Your task to perform on an android device: Is it going to rain today? Image 0: 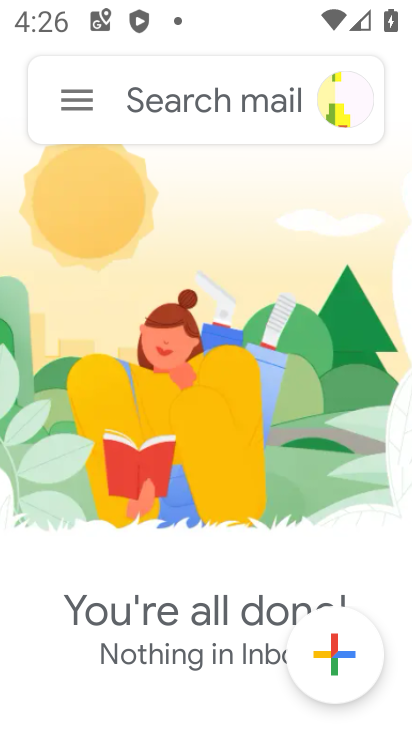
Step 0: press home button
Your task to perform on an android device: Is it going to rain today? Image 1: 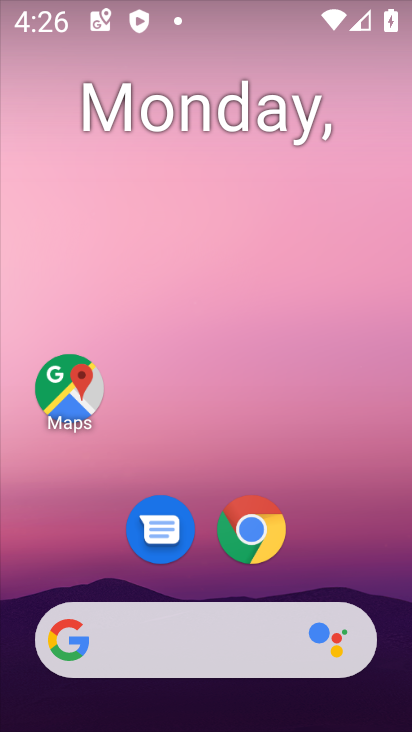
Step 1: drag from (211, 718) to (212, 252)
Your task to perform on an android device: Is it going to rain today? Image 2: 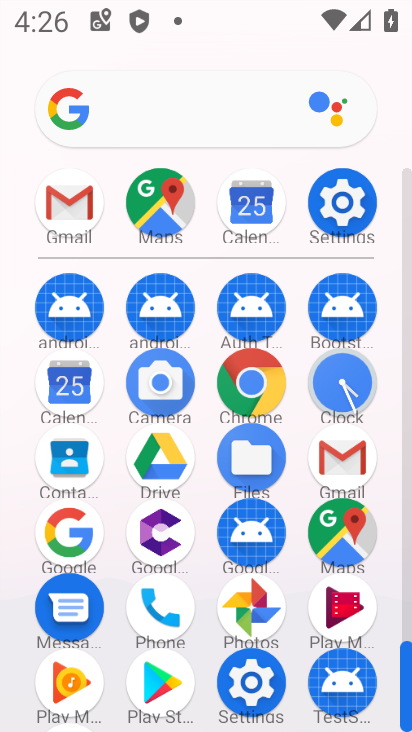
Step 2: click (71, 528)
Your task to perform on an android device: Is it going to rain today? Image 3: 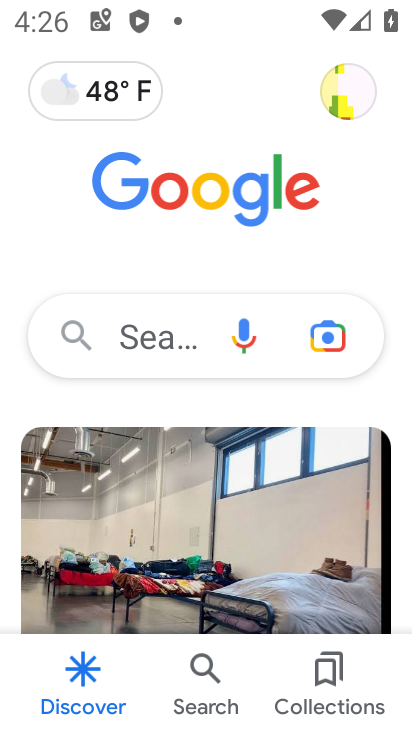
Step 3: click (99, 92)
Your task to perform on an android device: Is it going to rain today? Image 4: 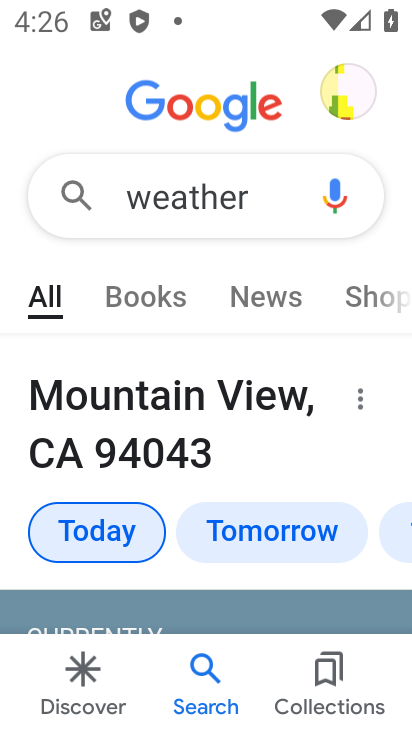
Step 4: task complete